Your task to perform on an android device: delete a single message in the gmail app Image 0: 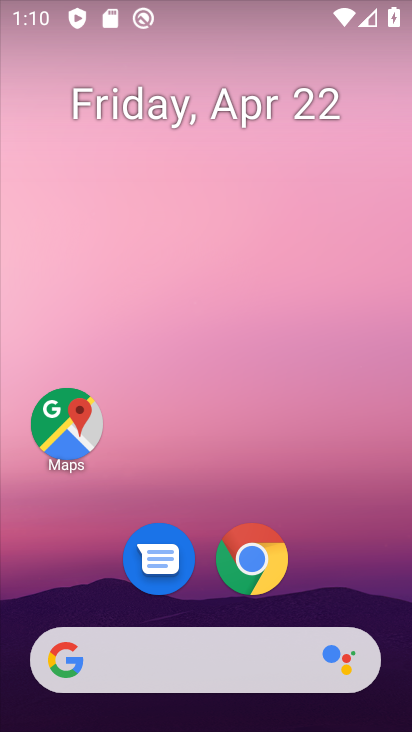
Step 0: drag from (194, 479) to (183, 1)
Your task to perform on an android device: delete a single message in the gmail app Image 1: 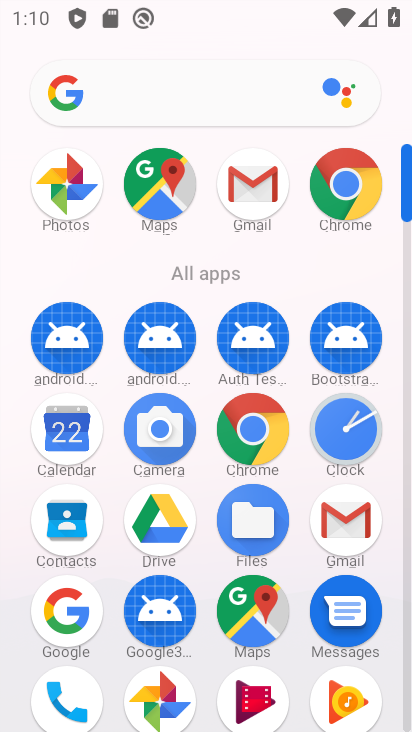
Step 1: click (239, 181)
Your task to perform on an android device: delete a single message in the gmail app Image 2: 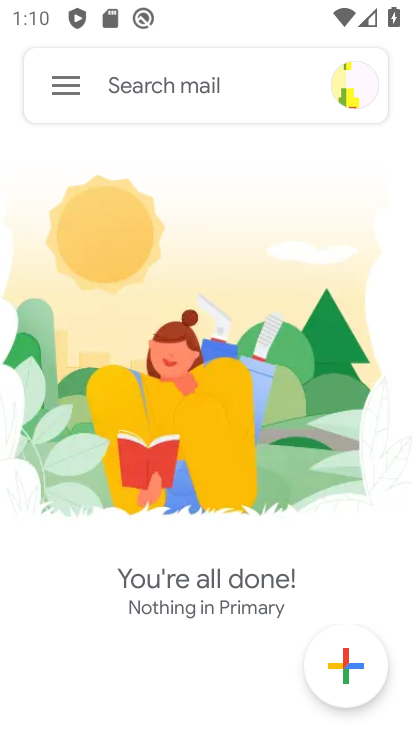
Step 2: task complete